Your task to perform on an android device: toggle wifi Image 0: 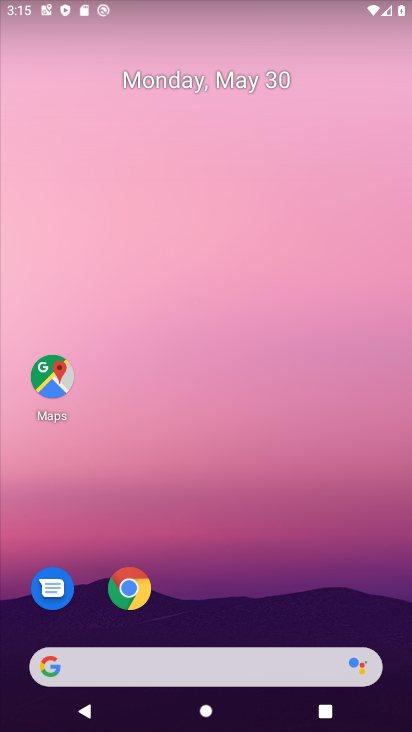
Step 0: drag from (331, 531) to (241, 5)
Your task to perform on an android device: toggle wifi Image 1: 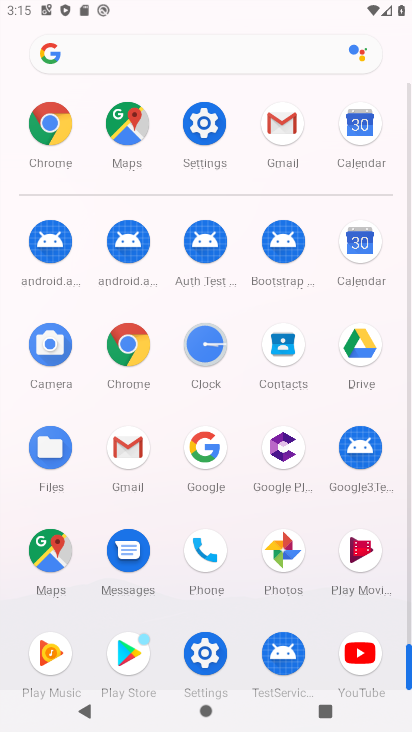
Step 1: drag from (13, 582) to (18, 233)
Your task to perform on an android device: toggle wifi Image 2: 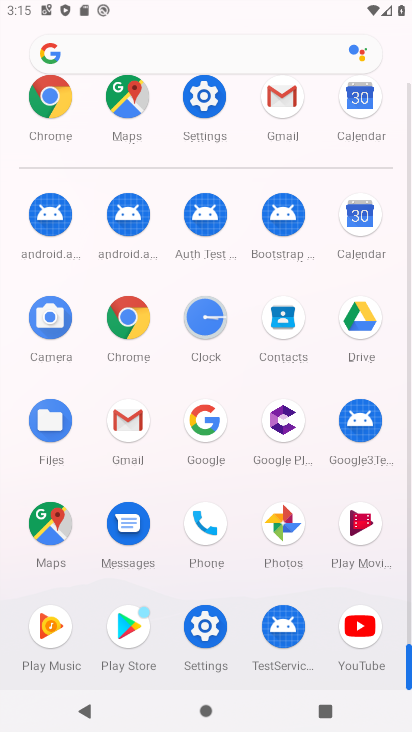
Step 2: click (203, 623)
Your task to perform on an android device: toggle wifi Image 3: 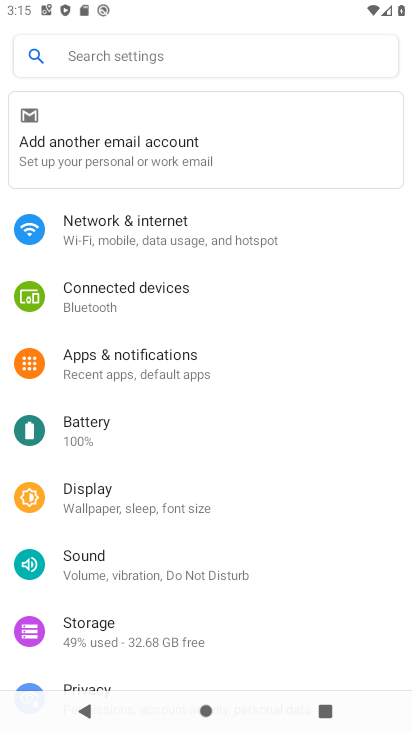
Step 3: click (202, 232)
Your task to perform on an android device: toggle wifi Image 4: 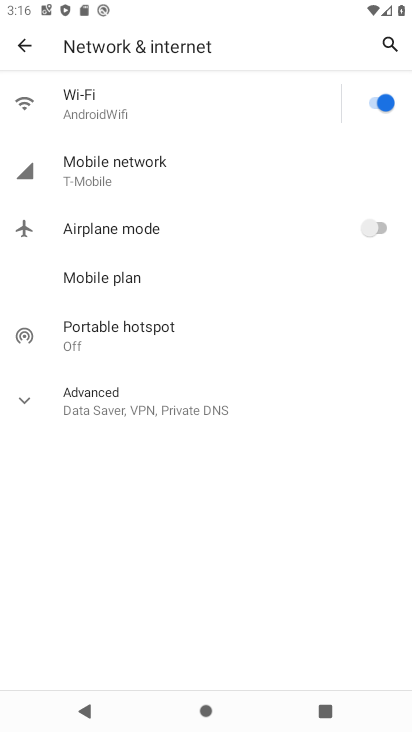
Step 4: click (35, 406)
Your task to perform on an android device: toggle wifi Image 5: 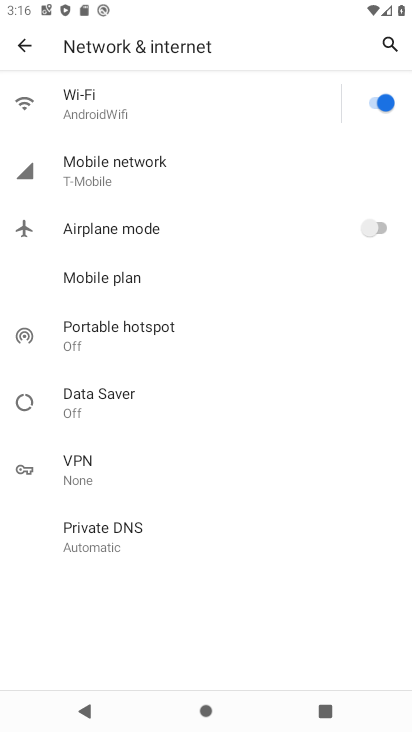
Step 5: click (358, 97)
Your task to perform on an android device: toggle wifi Image 6: 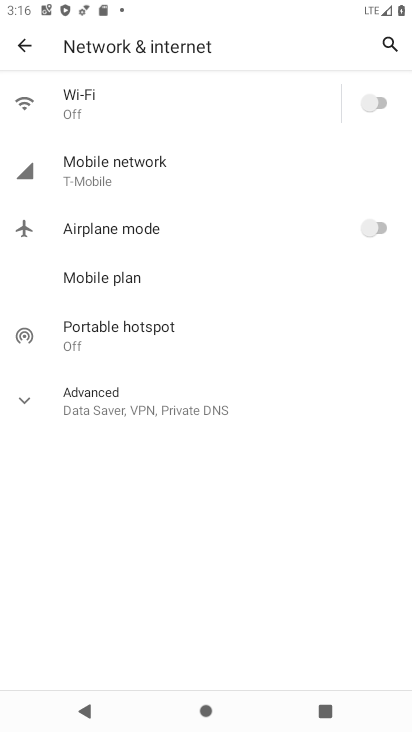
Step 6: click (19, 400)
Your task to perform on an android device: toggle wifi Image 7: 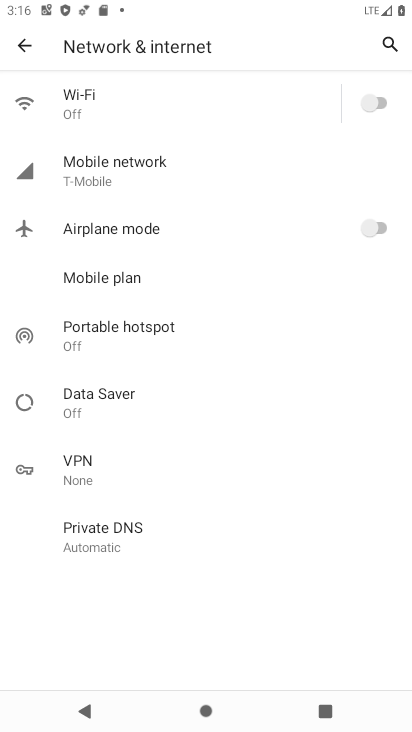
Step 7: task complete